Your task to perform on an android device: What is the recent news? Image 0: 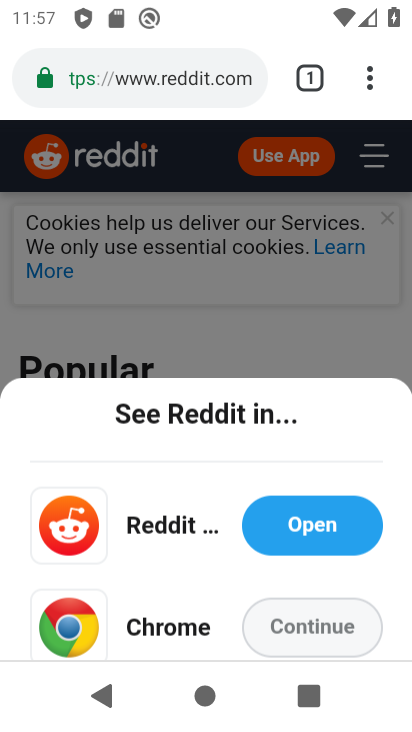
Step 0: task complete